Your task to perform on an android device: Open Chrome and go to settings Image 0: 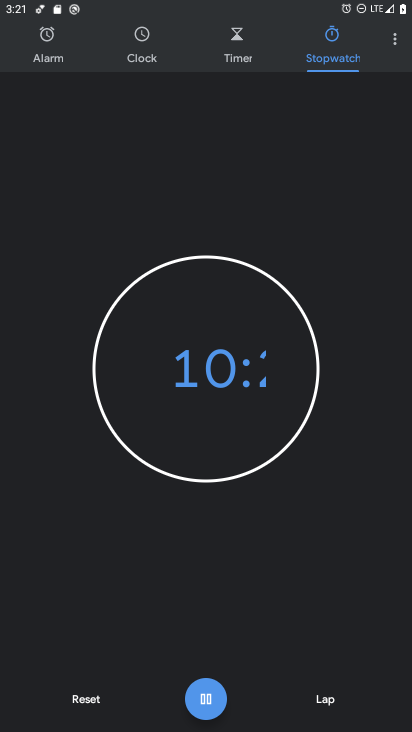
Step 0: press home button
Your task to perform on an android device: Open Chrome and go to settings Image 1: 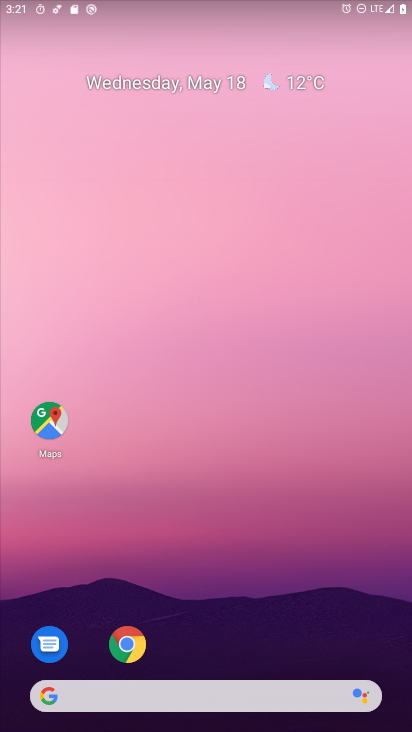
Step 1: click (131, 647)
Your task to perform on an android device: Open Chrome and go to settings Image 2: 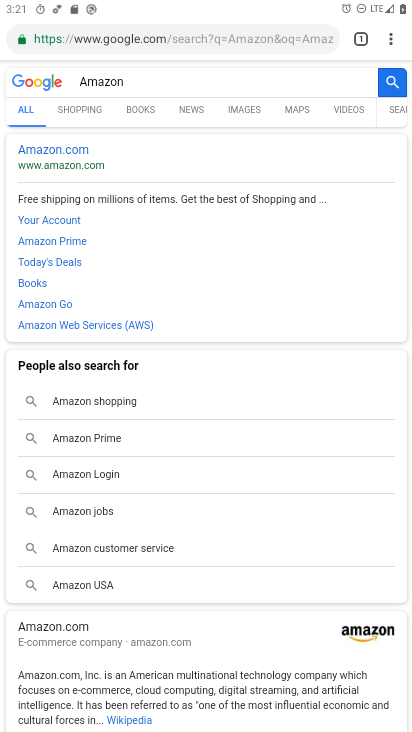
Step 2: click (386, 41)
Your task to perform on an android device: Open Chrome and go to settings Image 3: 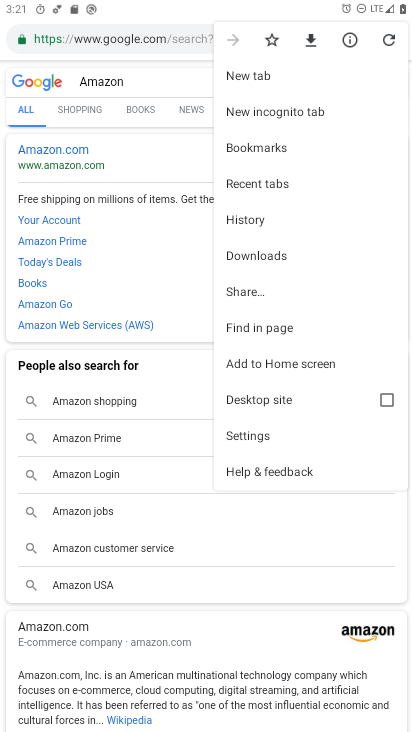
Step 3: click (257, 428)
Your task to perform on an android device: Open Chrome and go to settings Image 4: 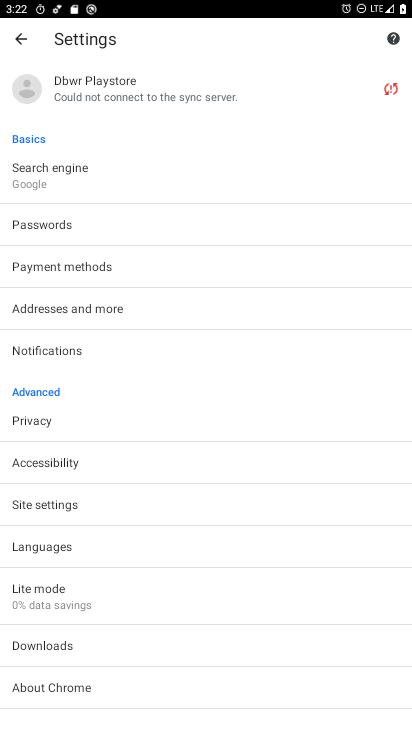
Step 4: task complete